Your task to perform on an android device: turn on improve location accuracy Image 0: 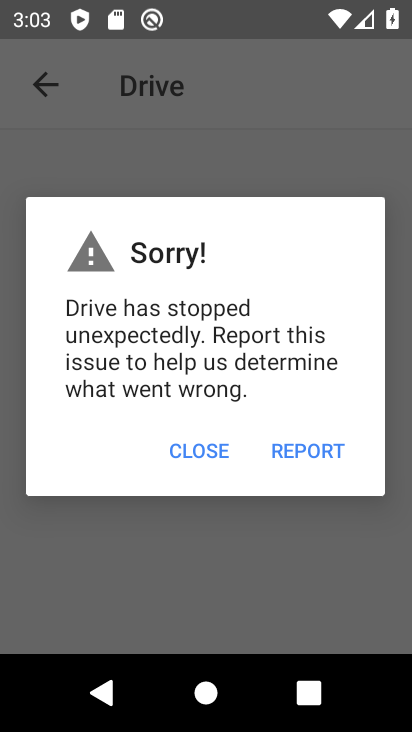
Step 0: press home button
Your task to perform on an android device: turn on improve location accuracy Image 1: 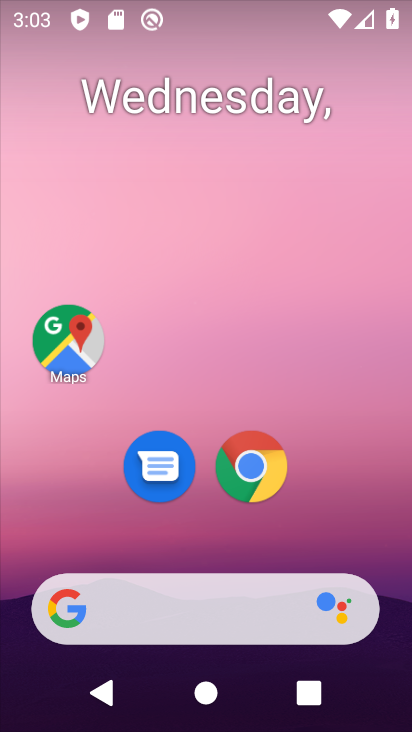
Step 1: drag from (361, 554) to (291, 128)
Your task to perform on an android device: turn on improve location accuracy Image 2: 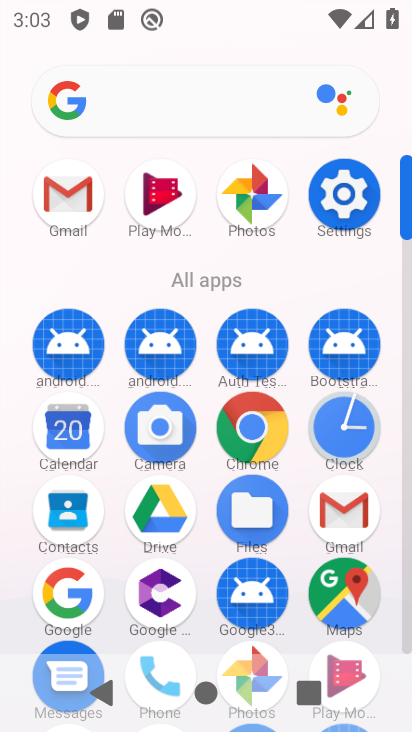
Step 2: click (404, 639)
Your task to perform on an android device: turn on improve location accuracy Image 3: 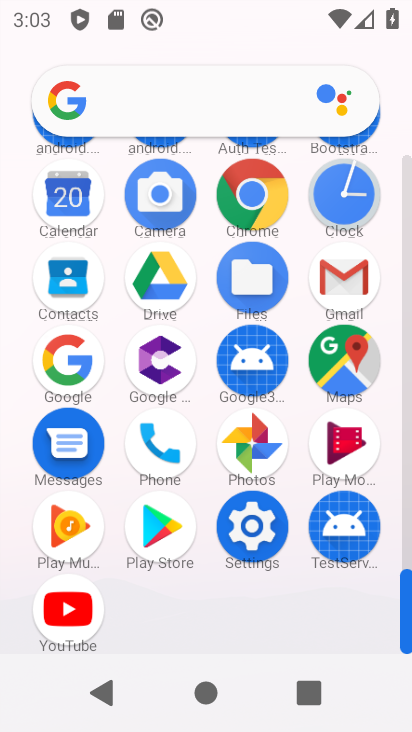
Step 3: click (248, 524)
Your task to perform on an android device: turn on improve location accuracy Image 4: 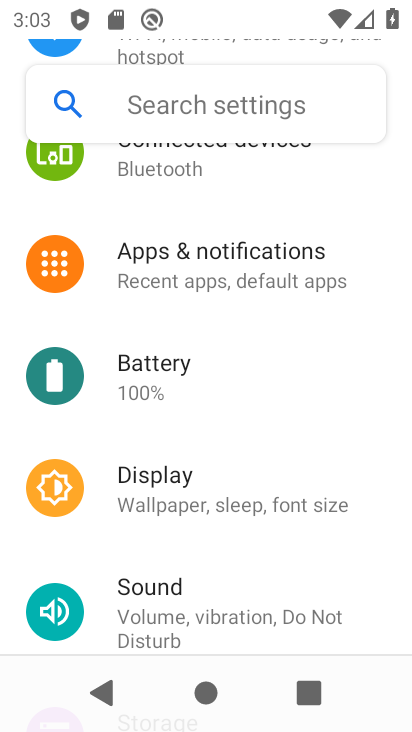
Step 4: drag from (330, 558) to (339, 316)
Your task to perform on an android device: turn on improve location accuracy Image 5: 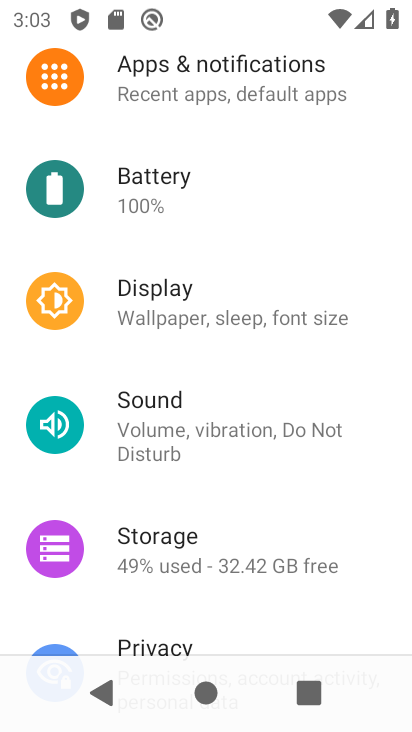
Step 5: drag from (330, 516) to (322, 260)
Your task to perform on an android device: turn on improve location accuracy Image 6: 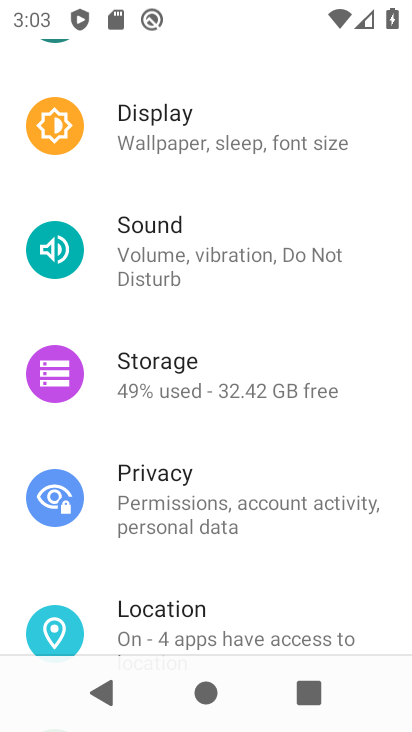
Step 6: drag from (298, 527) to (322, 252)
Your task to perform on an android device: turn on improve location accuracy Image 7: 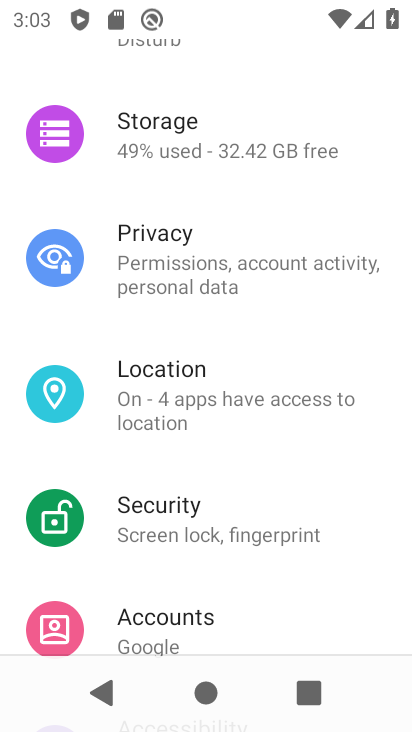
Step 7: click (168, 385)
Your task to perform on an android device: turn on improve location accuracy Image 8: 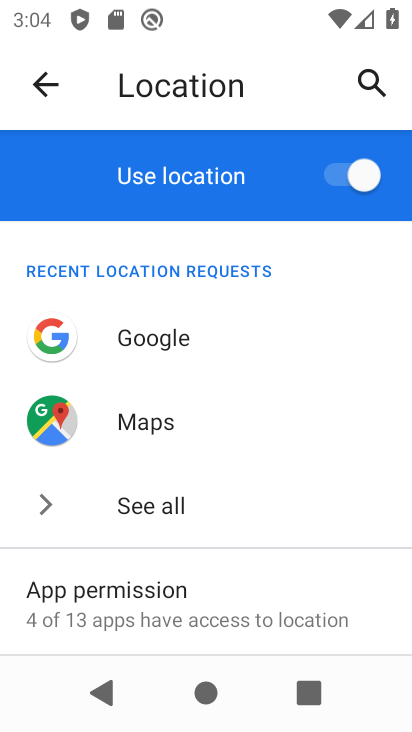
Step 8: task complete